Your task to perform on an android device: Search for vegetarian restaurants on Maps Image 0: 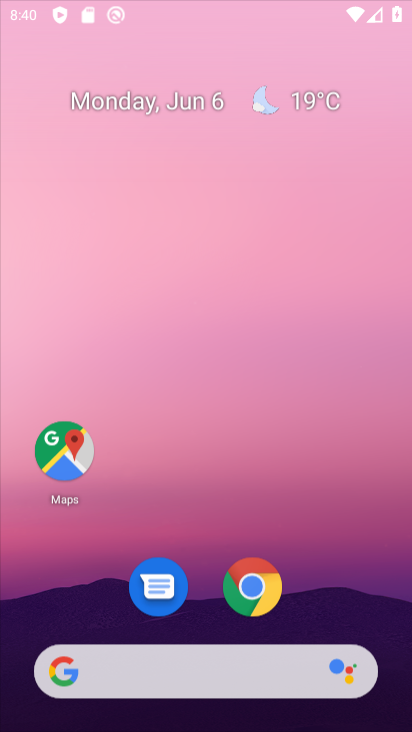
Step 0: click (254, 168)
Your task to perform on an android device: Search for vegetarian restaurants on Maps Image 1: 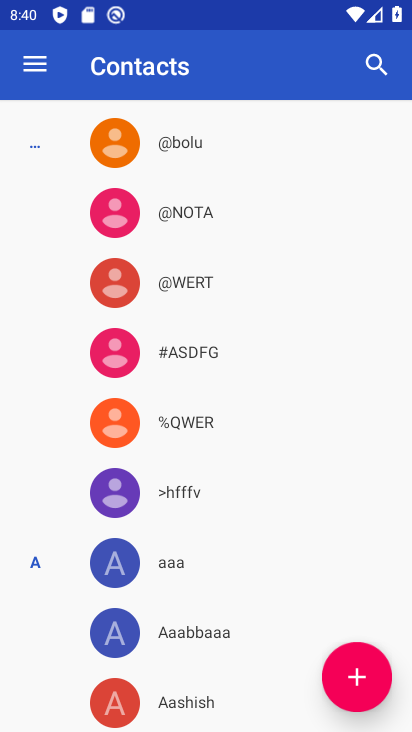
Step 1: press home button
Your task to perform on an android device: Search for vegetarian restaurants on Maps Image 2: 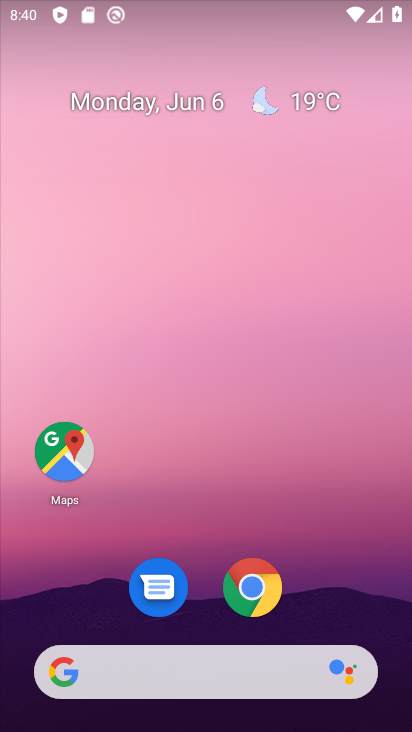
Step 2: click (40, 454)
Your task to perform on an android device: Search for vegetarian restaurants on Maps Image 3: 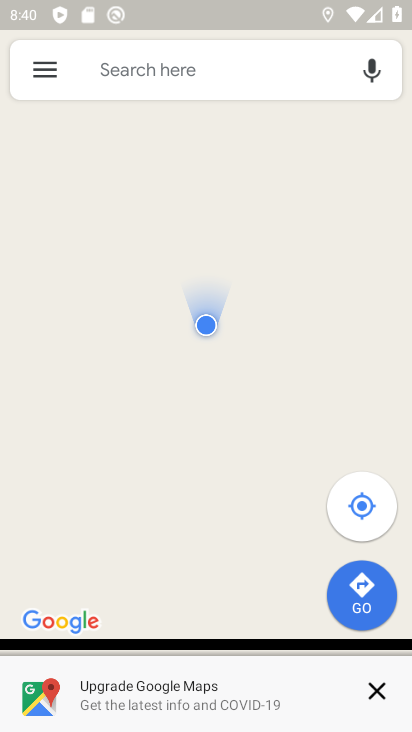
Step 3: click (155, 67)
Your task to perform on an android device: Search for vegetarian restaurants on Maps Image 4: 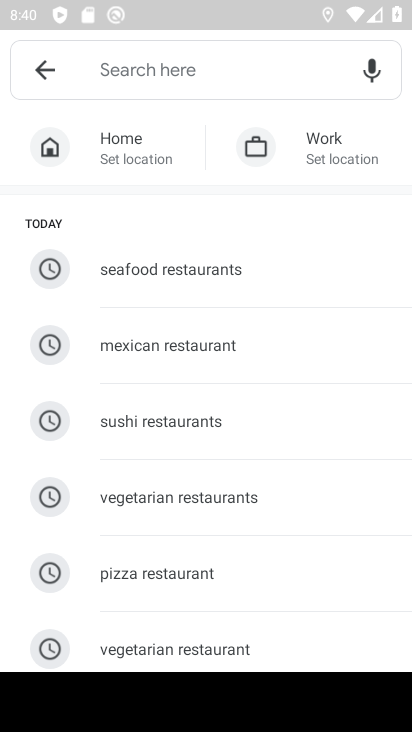
Step 4: type "vegetarian restaurants"
Your task to perform on an android device: Search for vegetarian restaurants on Maps Image 5: 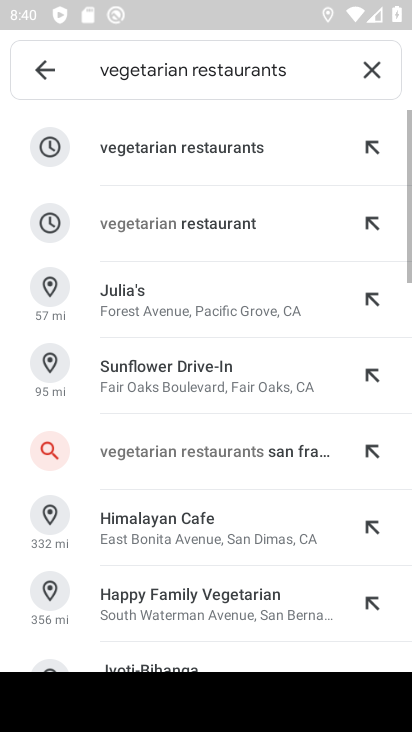
Step 5: click (251, 145)
Your task to perform on an android device: Search for vegetarian restaurants on Maps Image 6: 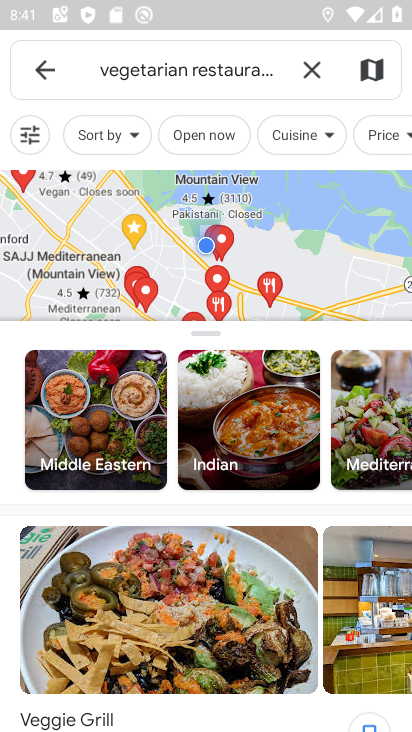
Step 6: task complete